Your task to perform on an android device: set the timer Image 0: 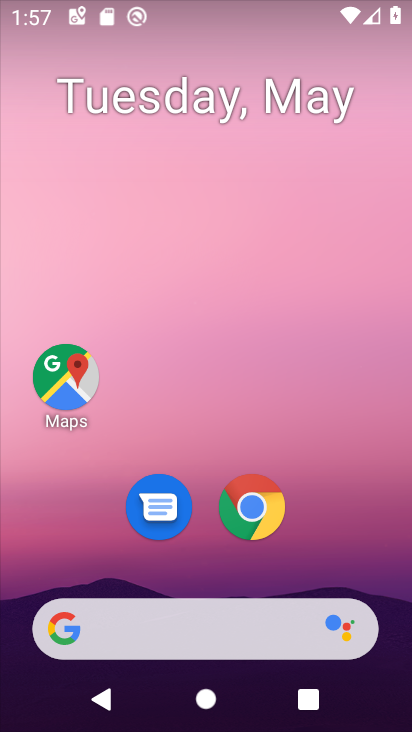
Step 0: drag from (215, 560) to (219, 241)
Your task to perform on an android device: set the timer Image 1: 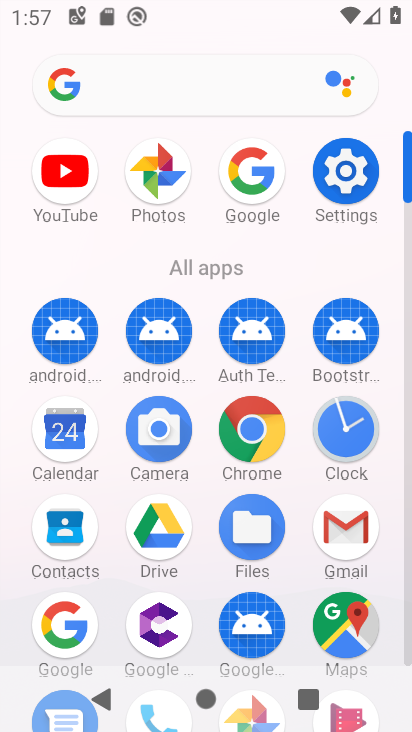
Step 1: click (328, 433)
Your task to perform on an android device: set the timer Image 2: 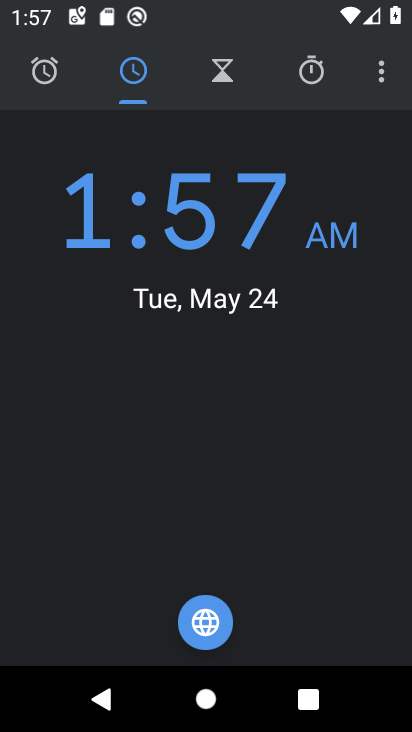
Step 2: click (232, 71)
Your task to perform on an android device: set the timer Image 3: 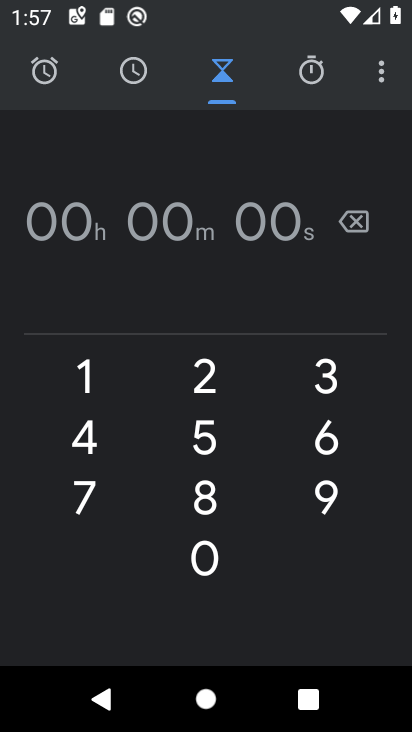
Step 3: click (255, 232)
Your task to perform on an android device: set the timer Image 4: 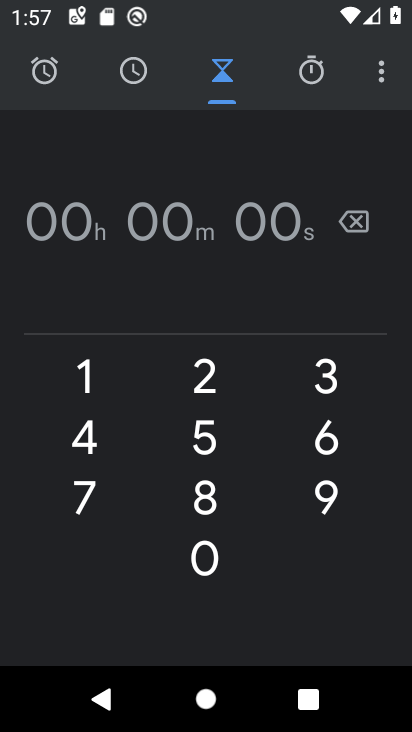
Step 4: type "12"
Your task to perform on an android device: set the timer Image 5: 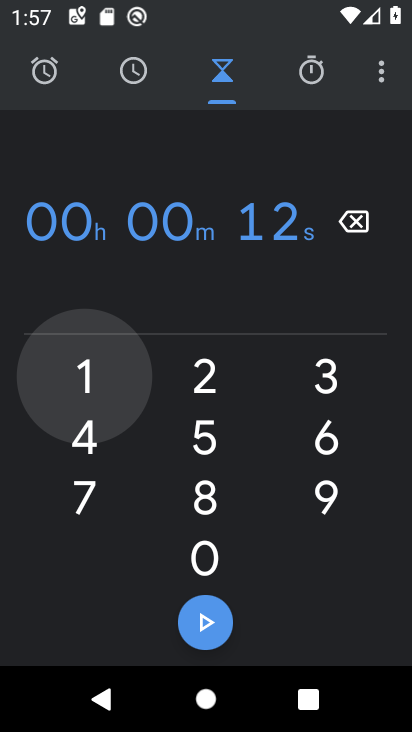
Step 5: click (213, 624)
Your task to perform on an android device: set the timer Image 6: 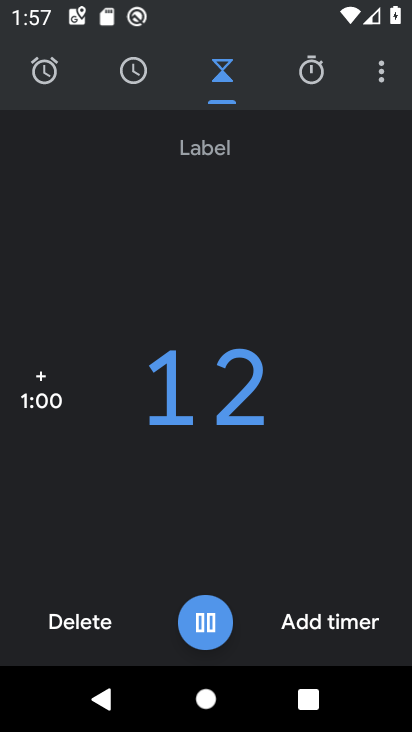
Step 6: task complete